Your task to perform on an android device: choose inbox layout in the gmail app Image 0: 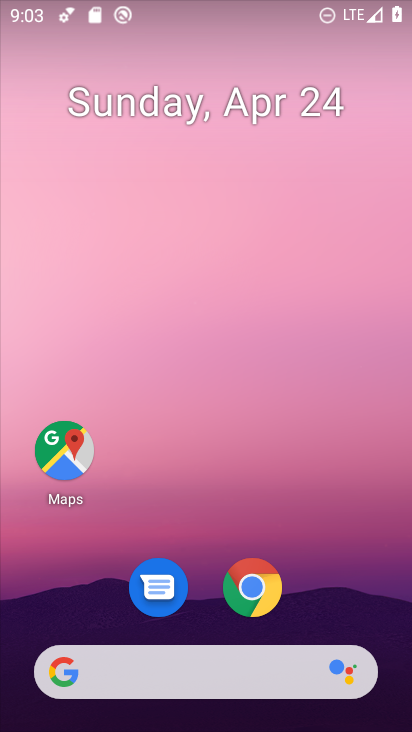
Step 0: drag from (355, 596) to (387, 149)
Your task to perform on an android device: choose inbox layout in the gmail app Image 1: 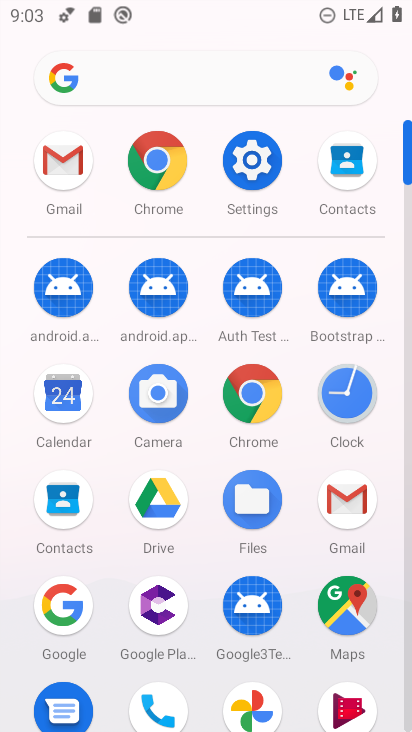
Step 1: click (350, 504)
Your task to perform on an android device: choose inbox layout in the gmail app Image 2: 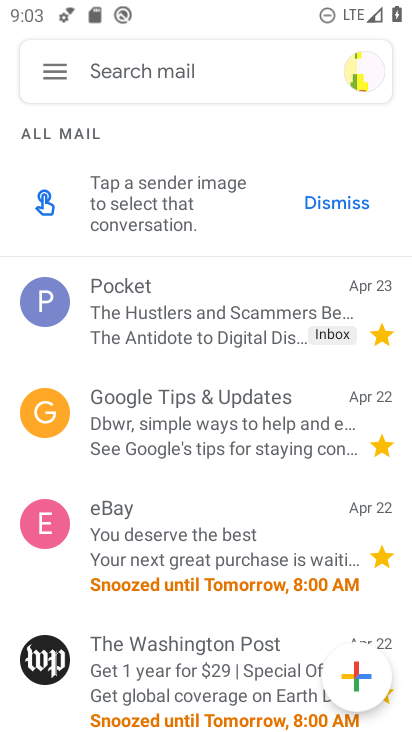
Step 2: drag from (228, 531) to (246, 279)
Your task to perform on an android device: choose inbox layout in the gmail app Image 3: 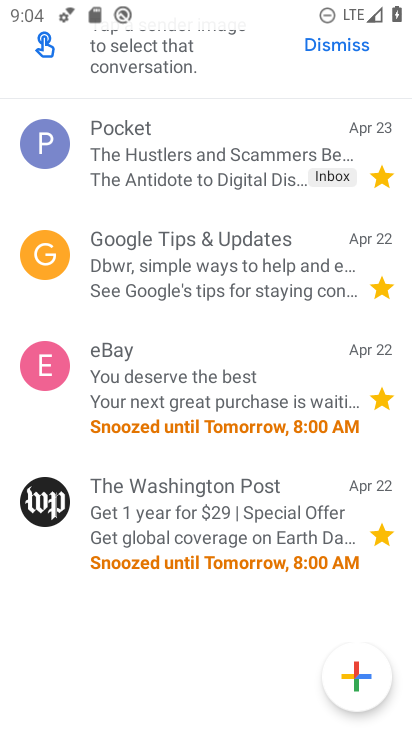
Step 3: drag from (161, 164) to (168, 494)
Your task to perform on an android device: choose inbox layout in the gmail app Image 4: 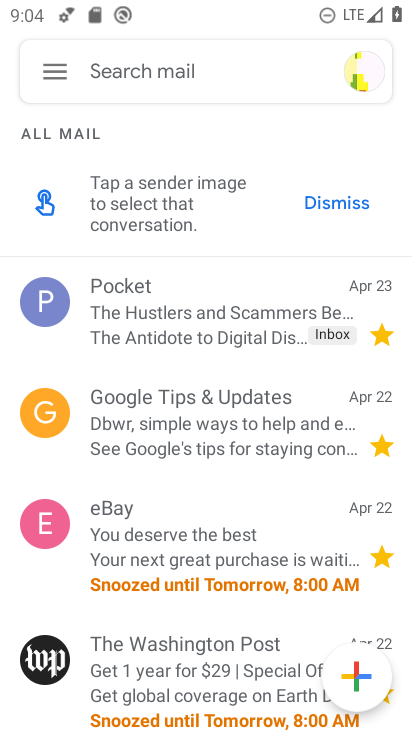
Step 4: click (62, 67)
Your task to perform on an android device: choose inbox layout in the gmail app Image 5: 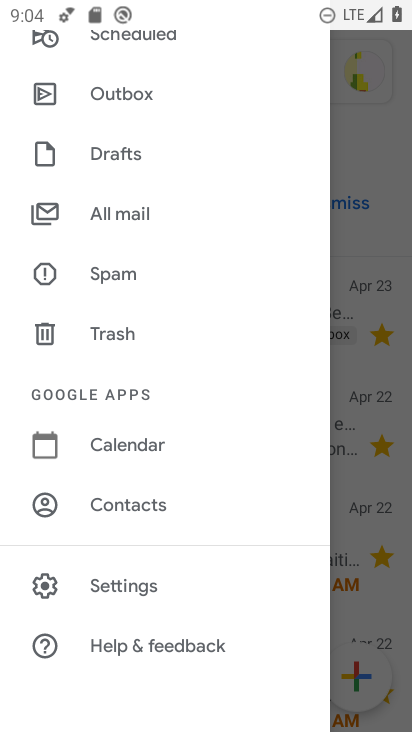
Step 5: drag from (236, 568) to (225, 286)
Your task to perform on an android device: choose inbox layout in the gmail app Image 6: 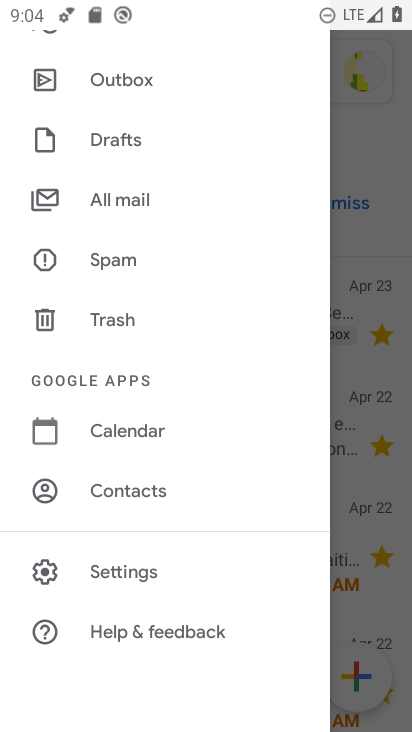
Step 6: click (140, 577)
Your task to perform on an android device: choose inbox layout in the gmail app Image 7: 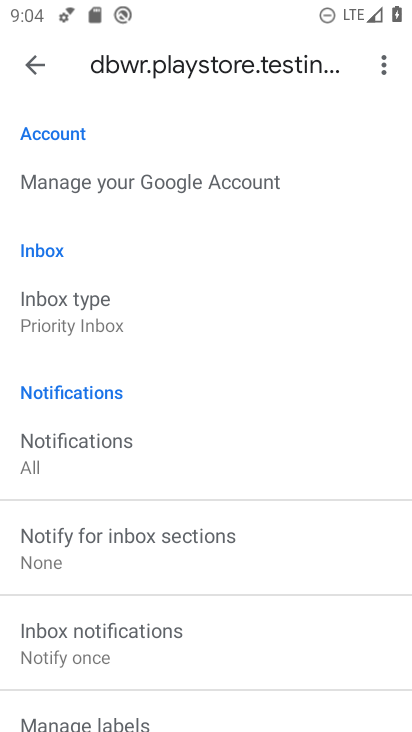
Step 7: click (84, 313)
Your task to perform on an android device: choose inbox layout in the gmail app Image 8: 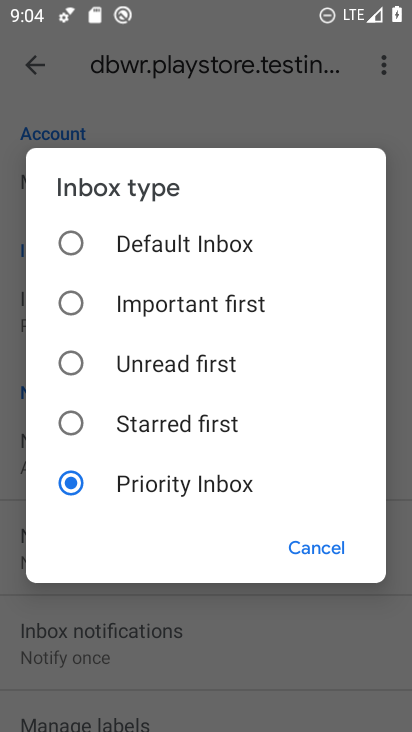
Step 8: click (74, 239)
Your task to perform on an android device: choose inbox layout in the gmail app Image 9: 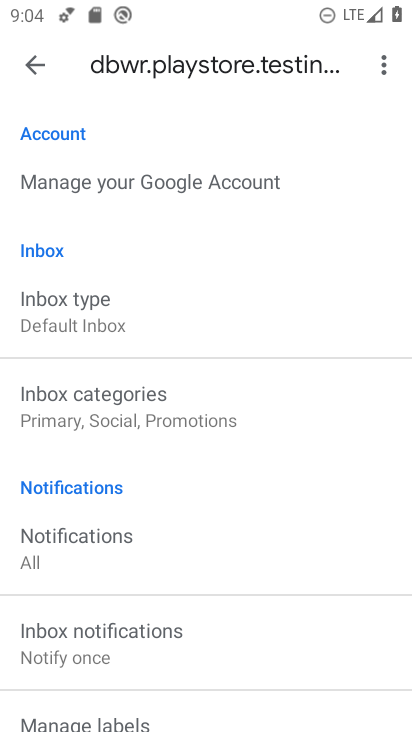
Step 9: task complete